Your task to perform on an android device: Open calendar and show me the second week of next month Image 0: 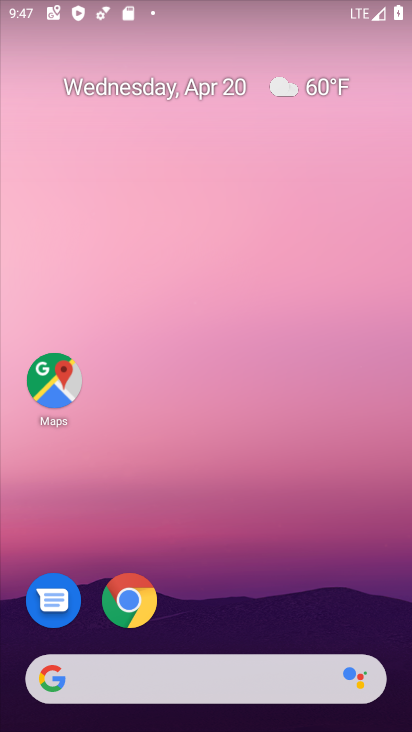
Step 0: click (165, 104)
Your task to perform on an android device: Open calendar and show me the second week of next month Image 1: 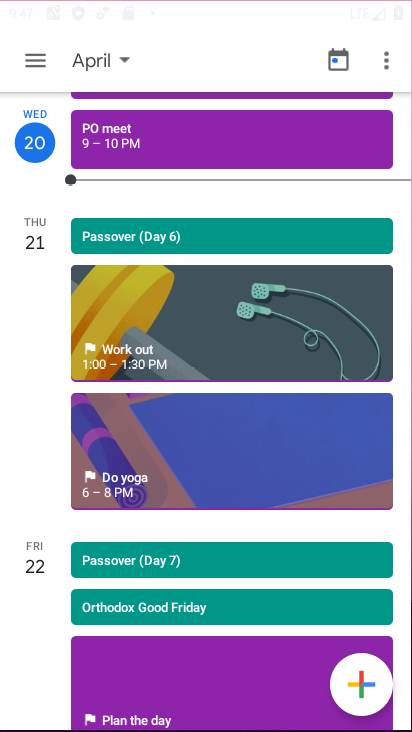
Step 1: click (198, 94)
Your task to perform on an android device: Open calendar and show me the second week of next month Image 2: 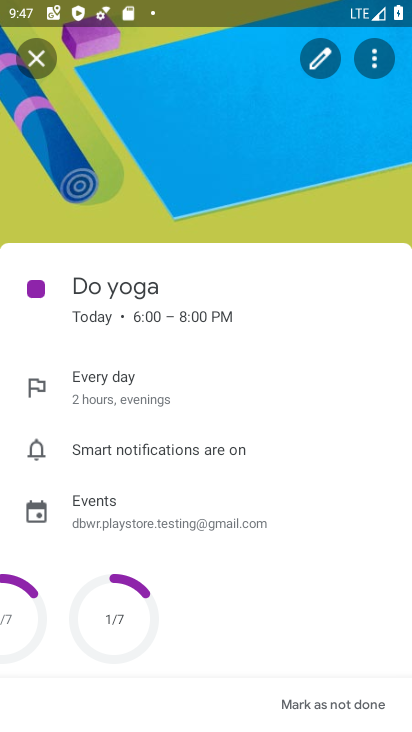
Step 2: click (42, 68)
Your task to perform on an android device: Open calendar and show me the second week of next month Image 3: 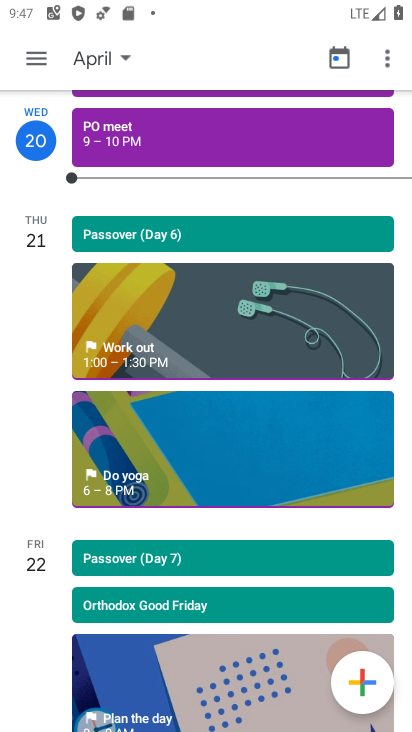
Step 3: click (69, 58)
Your task to perform on an android device: Open calendar and show me the second week of next month Image 4: 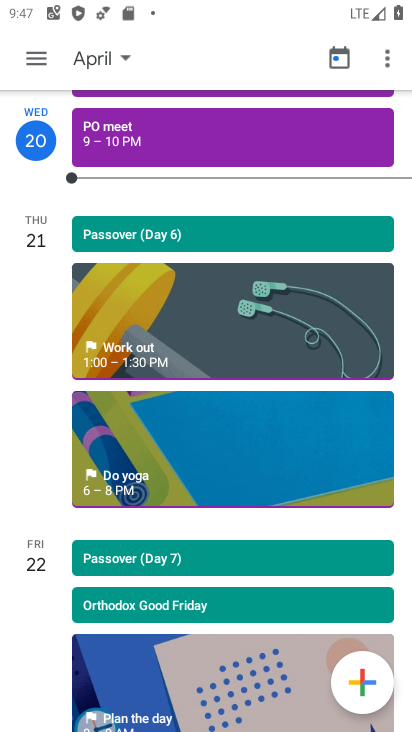
Step 4: click (94, 65)
Your task to perform on an android device: Open calendar and show me the second week of next month Image 5: 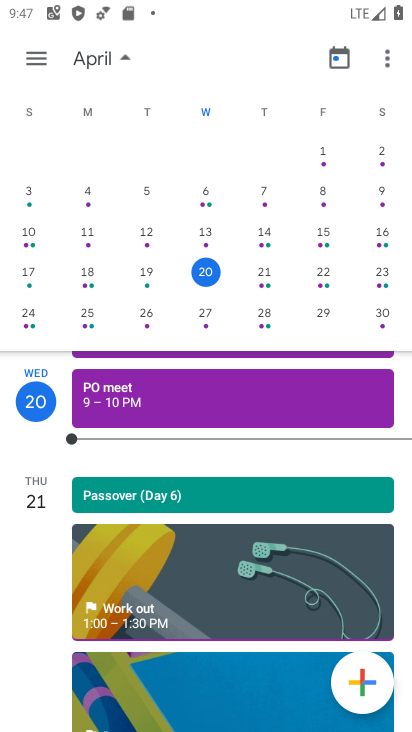
Step 5: drag from (365, 243) to (58, 308)
Your task to perform on an android device: Open calendar and show me the second week of next month Image 6: 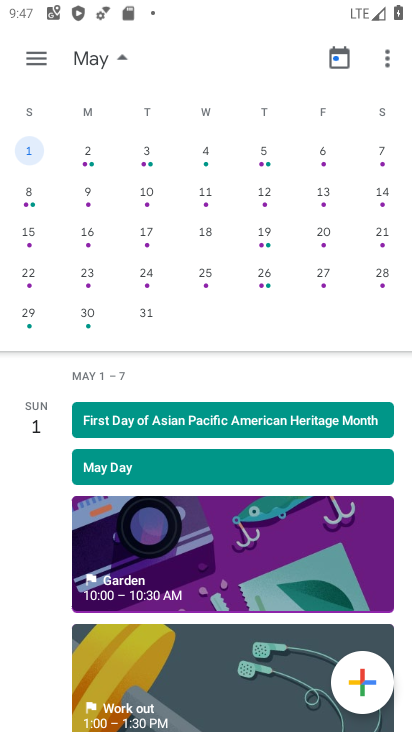
Step 6: drag from (372, 317) to (5, 227)
Your task to perform on an android device: Open calendar and show me the second week of next month Image 7: 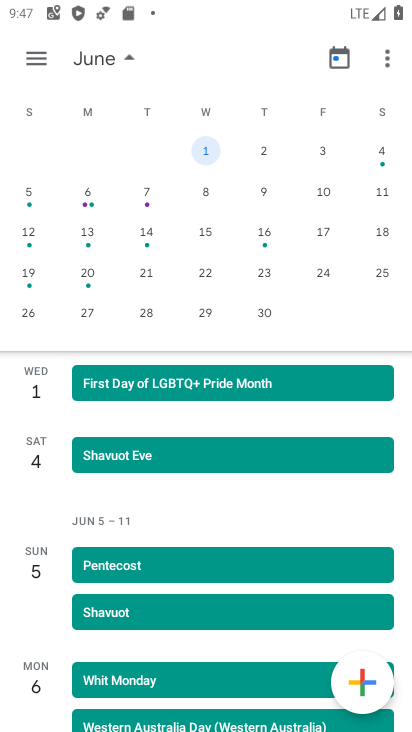
Step 7: drag from (64, 276) to (411, 327)
Your task to perform on an android device: Open calendar and show me the second week of next month Image 8: 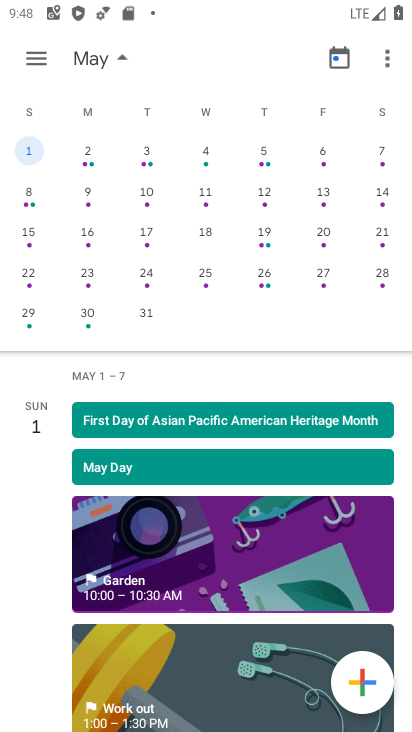
Step 8: click (213, 193)
Your task to perform on an android device: Open calendar and show me the second week of next month Image 9: 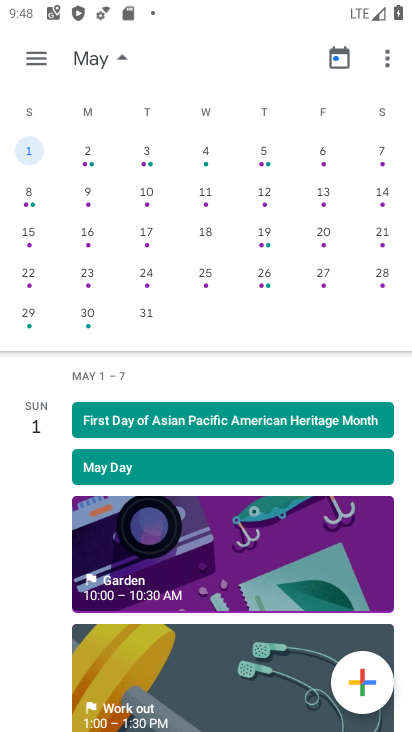
Step 9: click (205, 195)
Your task to perform on an android device: Open calendar and show me the second week of next month Image 10: 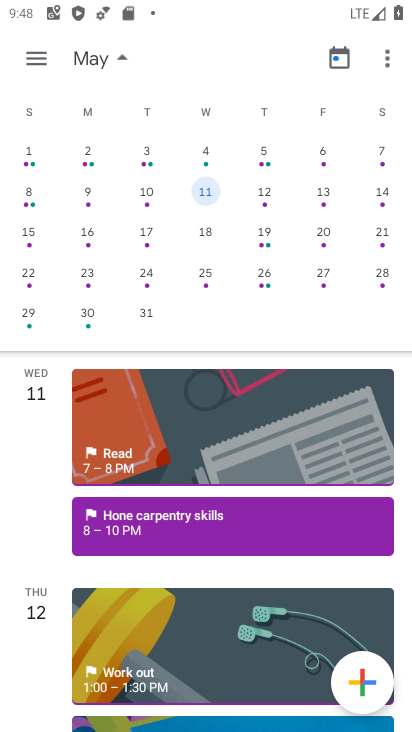
Step 10: task complete